Your task to perform on an android device: read, delete, or share a saved page in the chrome app Image 0: 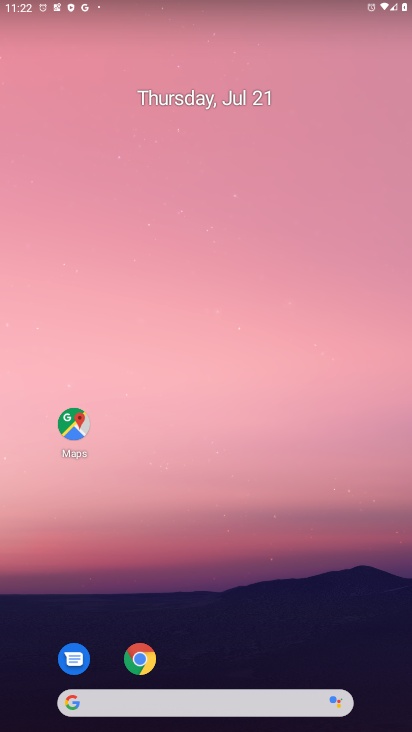
Step 0: click (142, 658)
Your task to perform on an android device: read, delete, or share a saved page in the chrome app Image 1: 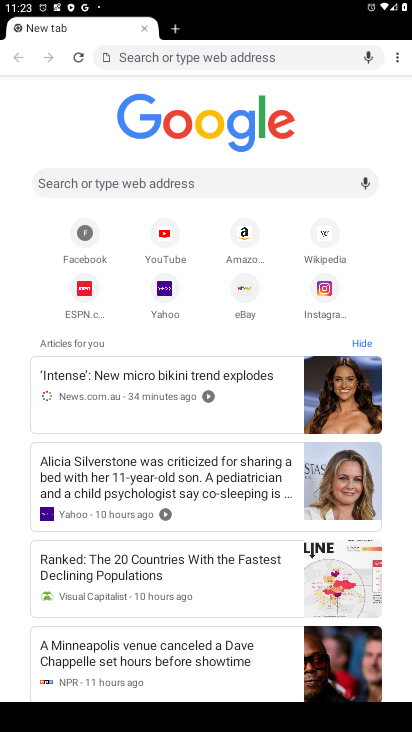
Step 1: click (396, 59)
Your task to perform on an android device: read, delete, or share a saved page in the chrome app Image 2: 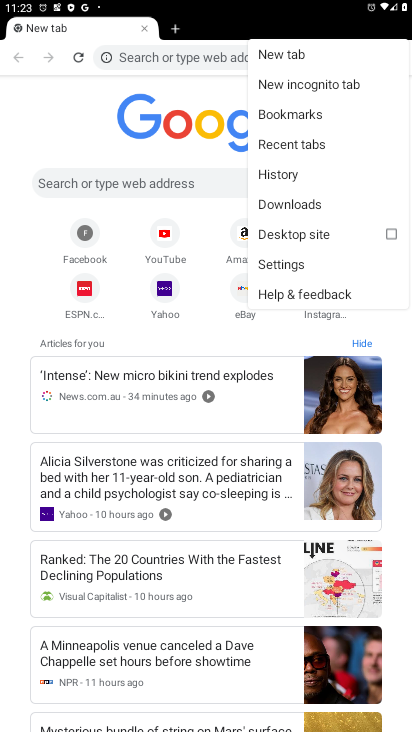
Step 2: click (295, 203)
Your task to perform on an android device: read, delete, or share a saved page in the chrome app Image 3: 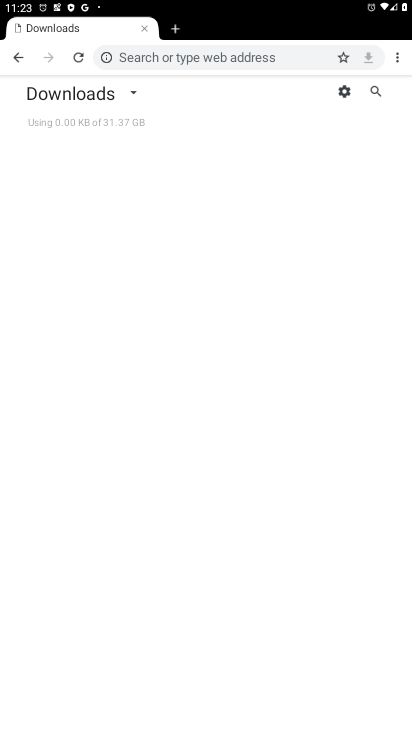
Step 3: click (135, 92)
Your task to perform on an android device: read, delete, or share a saved page in the chrome app Image 4: 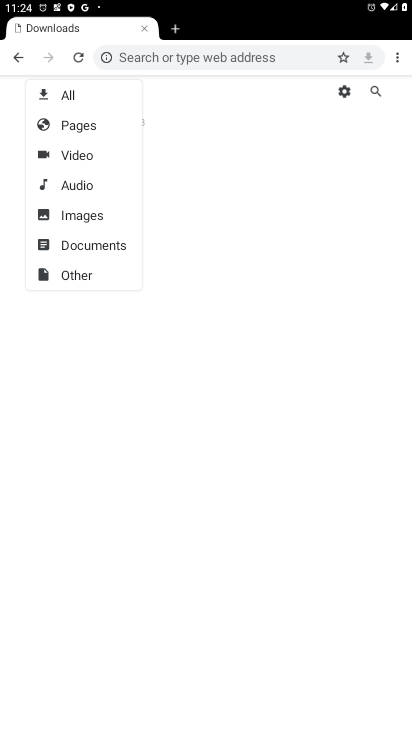
Step 4: click (83, 149)
Your task to perform on an android device: read, delete, or share a saved page in the chrome app Image 5: 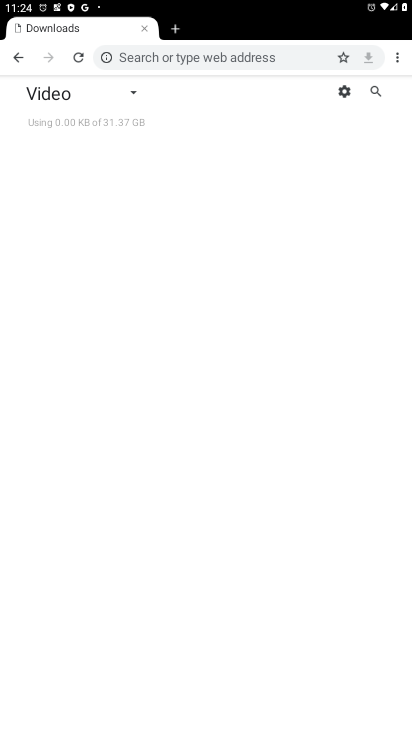
Step 5: task complete